Your task to perform on an android device: set an alarm Image 0: 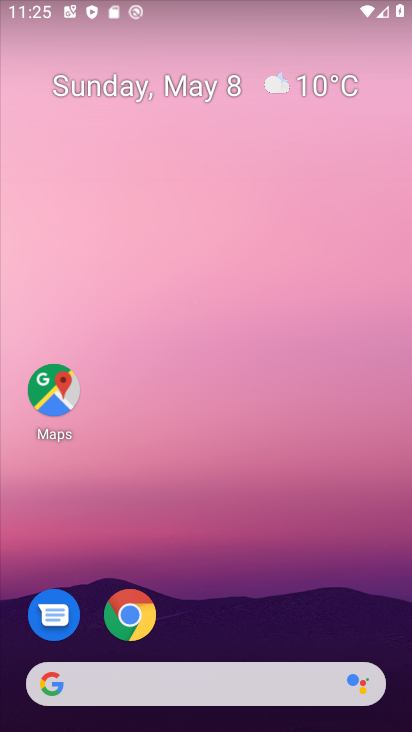
Step 0: drag from (285, 717) to (197, 187)
Your task to perform on an android device: set an alarm Image 1: 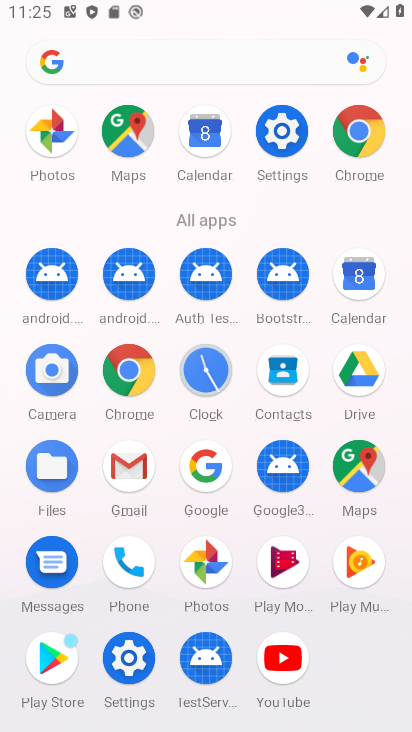
Step 1: click (201, 377)
Your task to perform on an android device: set an alarm Image 2: 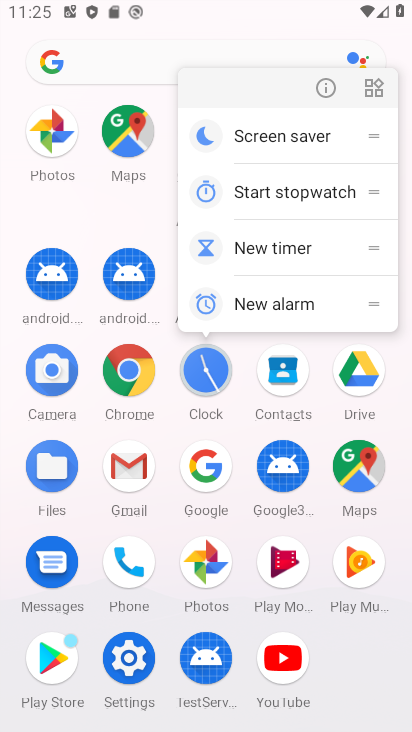
Step 2: click (193, 383)
Your task to perform on an android device: set an alarm Image 3: 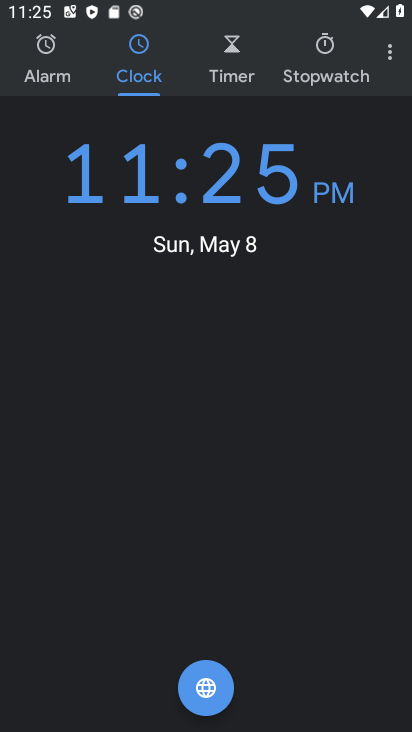
Step 3: click (50, 80)
Your task to perform on an android device: set an alarm Image 4: 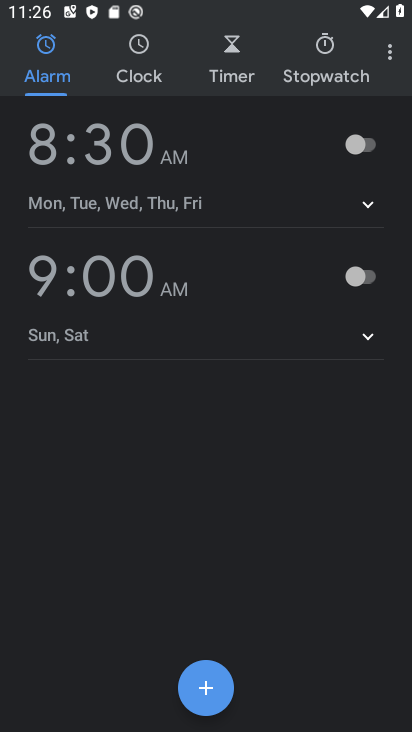
Step 4: click (347, 141)
Your task to perform on an android device: set an alarm Image 5: 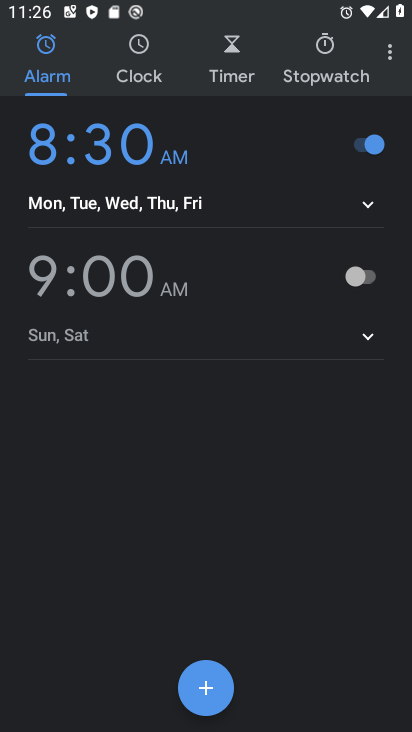
Step 5: task complete